Your task to perform on an android device: toggle location history Image 0: 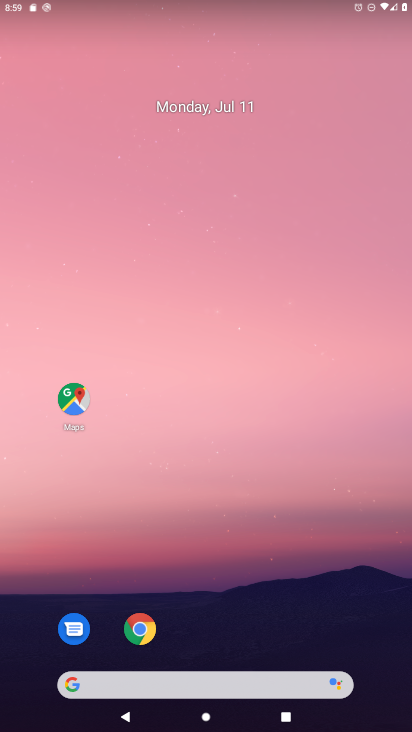
Step 0: drag from (243, 619) to (250, 83)
Your task to perform on an android device: toggle location history Image 1: 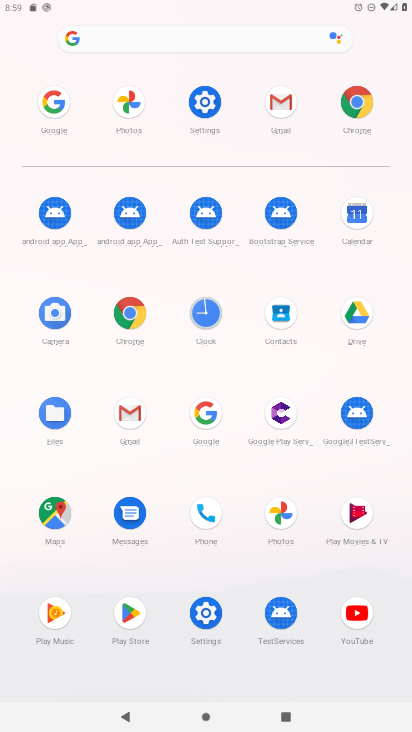
Step 1: click (206, 107)
Your task to perform on an android device: toggle location history Image 2: 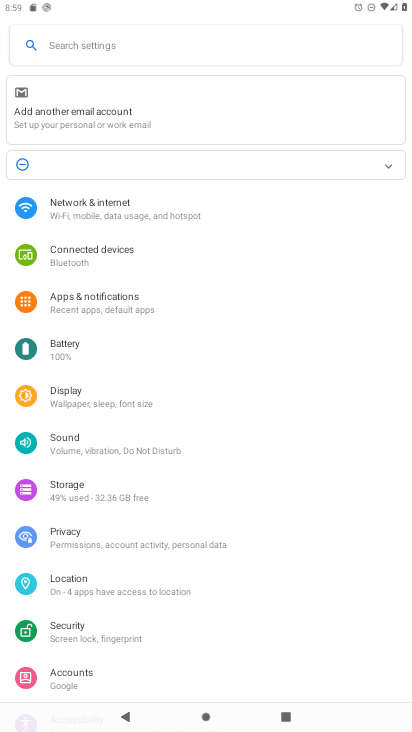
Step 2: click (102, 584)
Your task to perform on an android device: toggle location history Image 3: 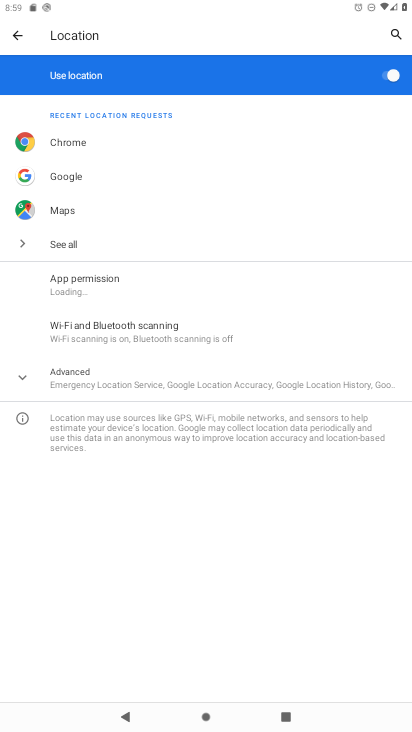
Step 3: click (120, 377)
Your task to perform on an android device: toggle location history Image 4: 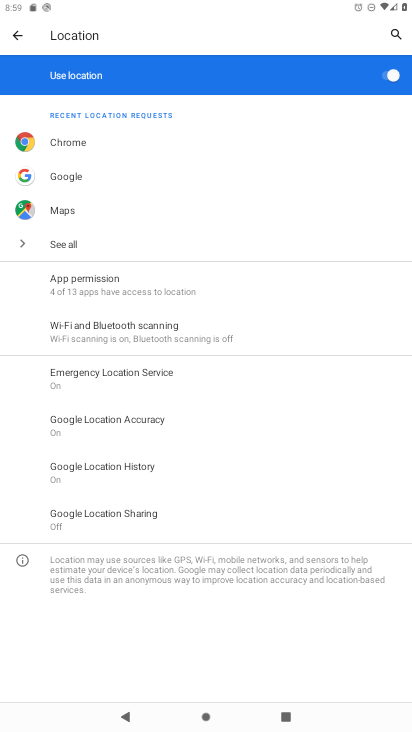
Step 4: click (150, 470)
Your task to perform on an android device: toggle location history Image 5: 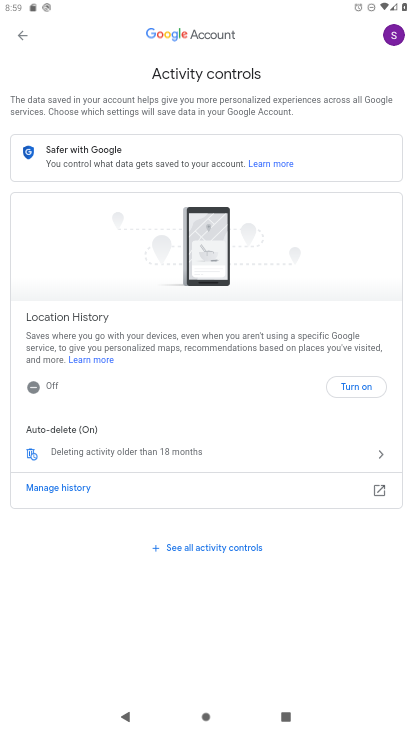
Step 5: click (349, 388)
Your task to perform on an android device: toggle location history Image 6: 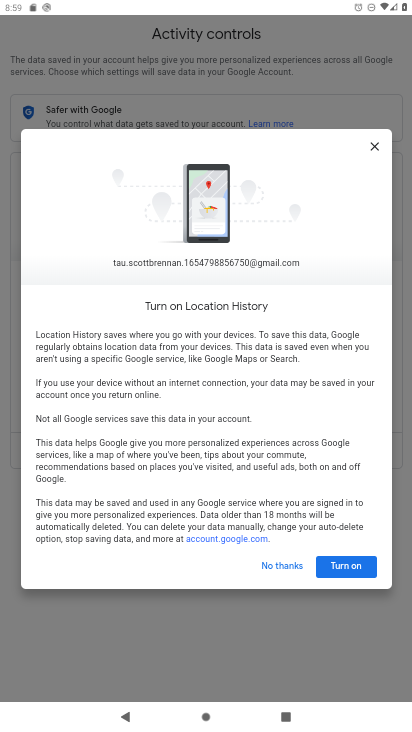
Step 6: click (355, 562)
Your task to perform on an android device: toggle location history Image 7: 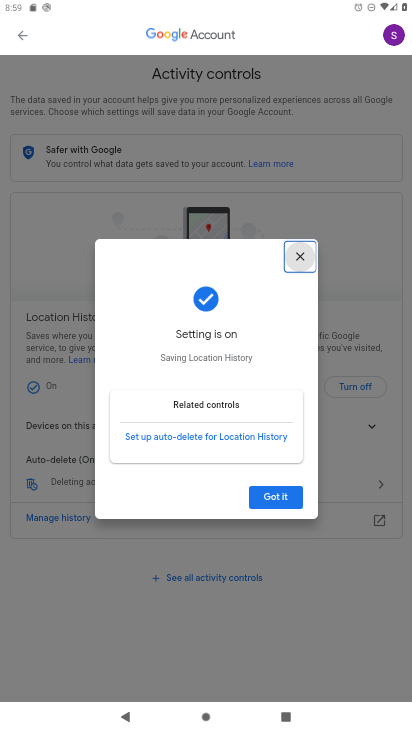
Step 7: click (279, 497)
Your task to perform on an android device: toggle location history Image 8: 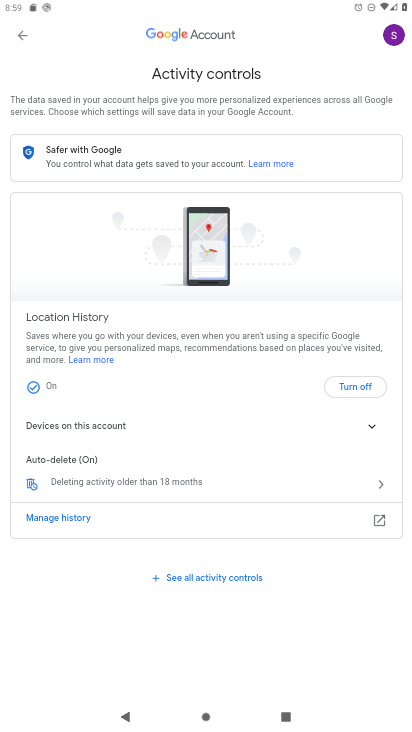
Step 8: task complete